Your task to perform on an android device: open app "NewsBreak: Local News & Alerts" (install if not already installed) and go to login screen Image 0: 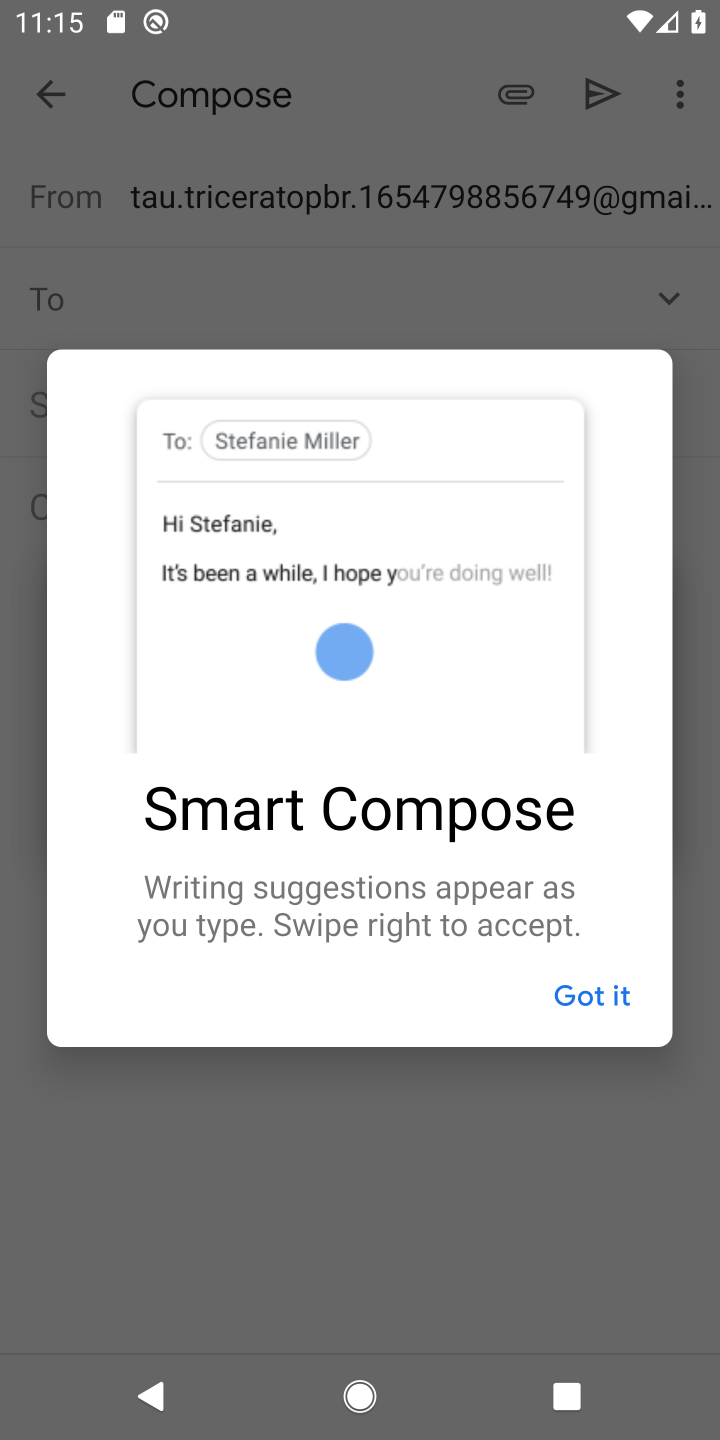
Step 0: press home button
Your task to perform on an android device: open app "NewsBreak: Local News & Alerts" (install if not already installed) and go to login screen Image 1: 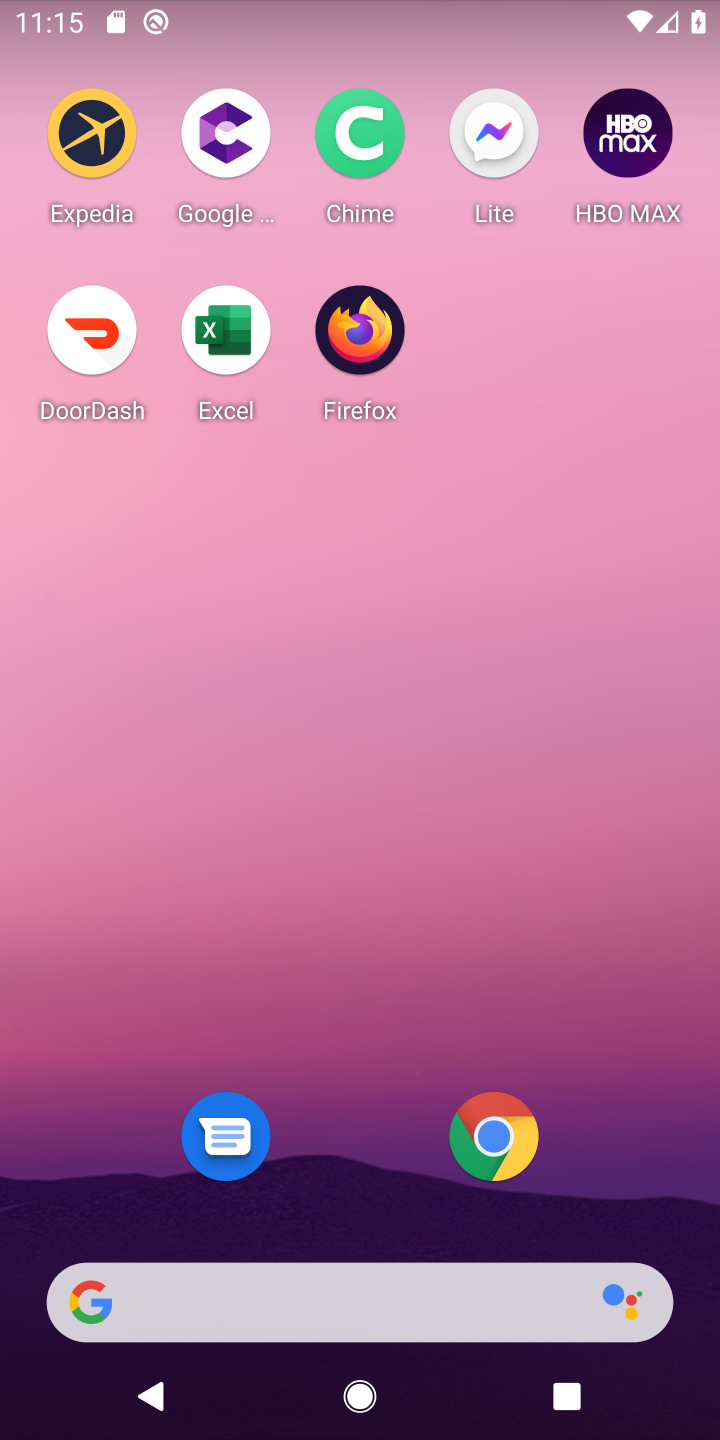
Step 1: drag from (354, 34) to (227, 7)
Your task to perform on an android device: open app "NewsBreak: Local News & Alerts" (install if not already installed) and go to login screen Image 2: 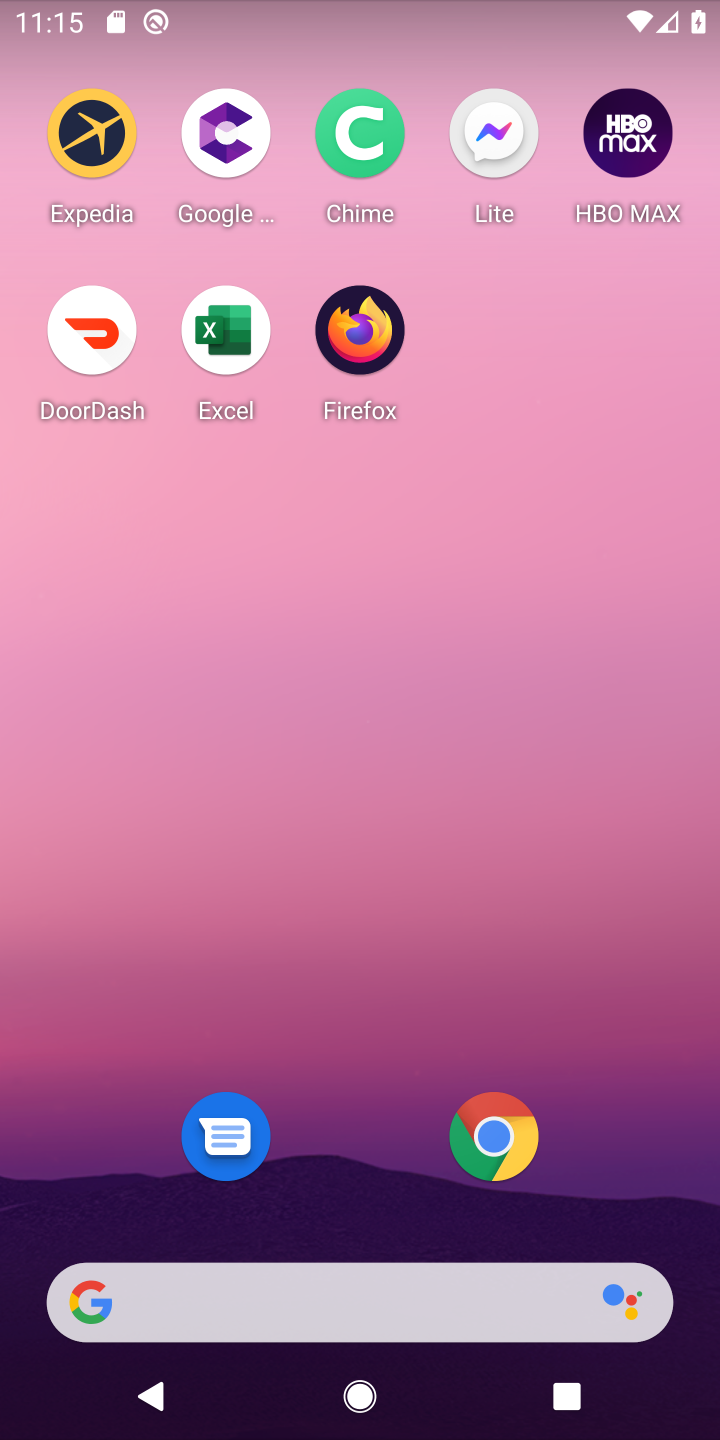
Step 2: drag from (335, 1165) to (460, 21)
Your task to perform on an android device: open app "NewsBreak: Local News & Alerts" (install if not already installed) and go to login screen Image 3: 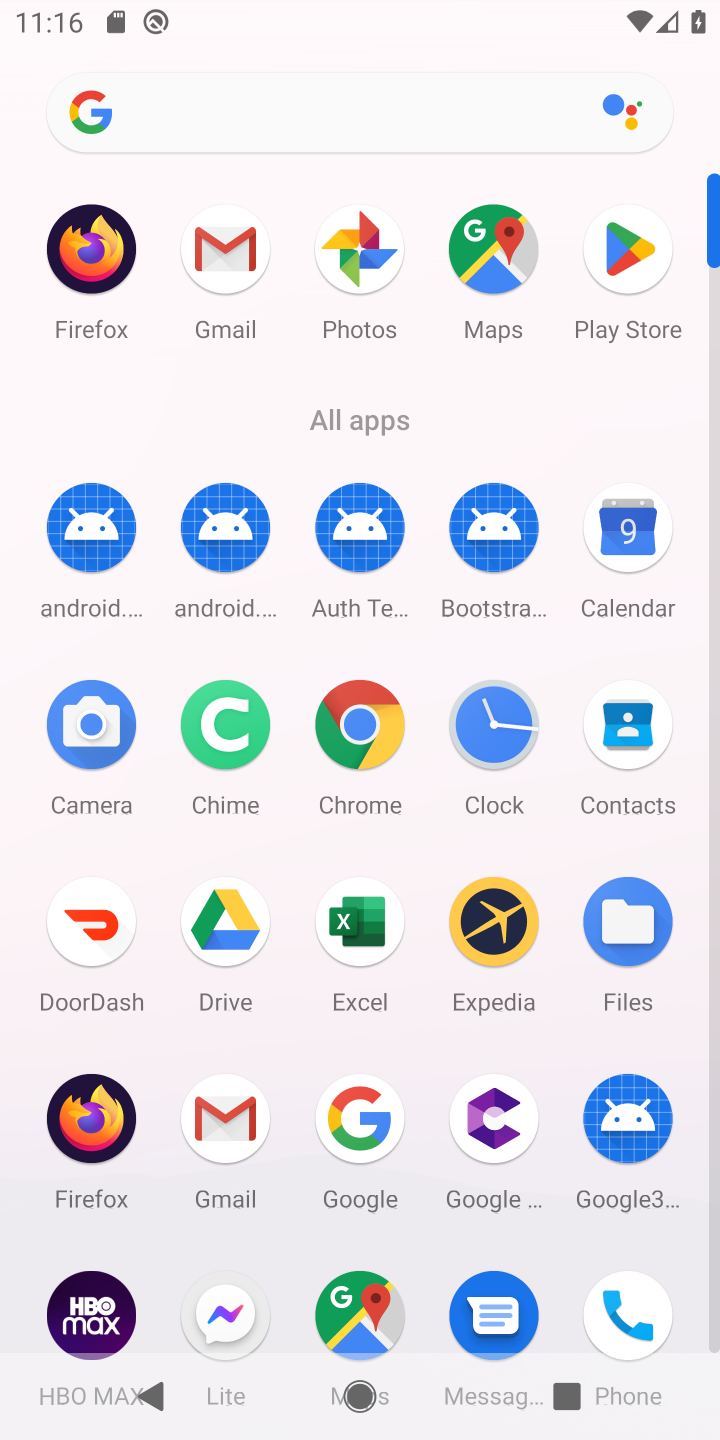
Step 3: drag from (308, 1229) to (373, 573)
Your task to perform on an android device: open app "NewsBreak: Local News & Alerts" (install if not already installed) and go to login screen Image 4: 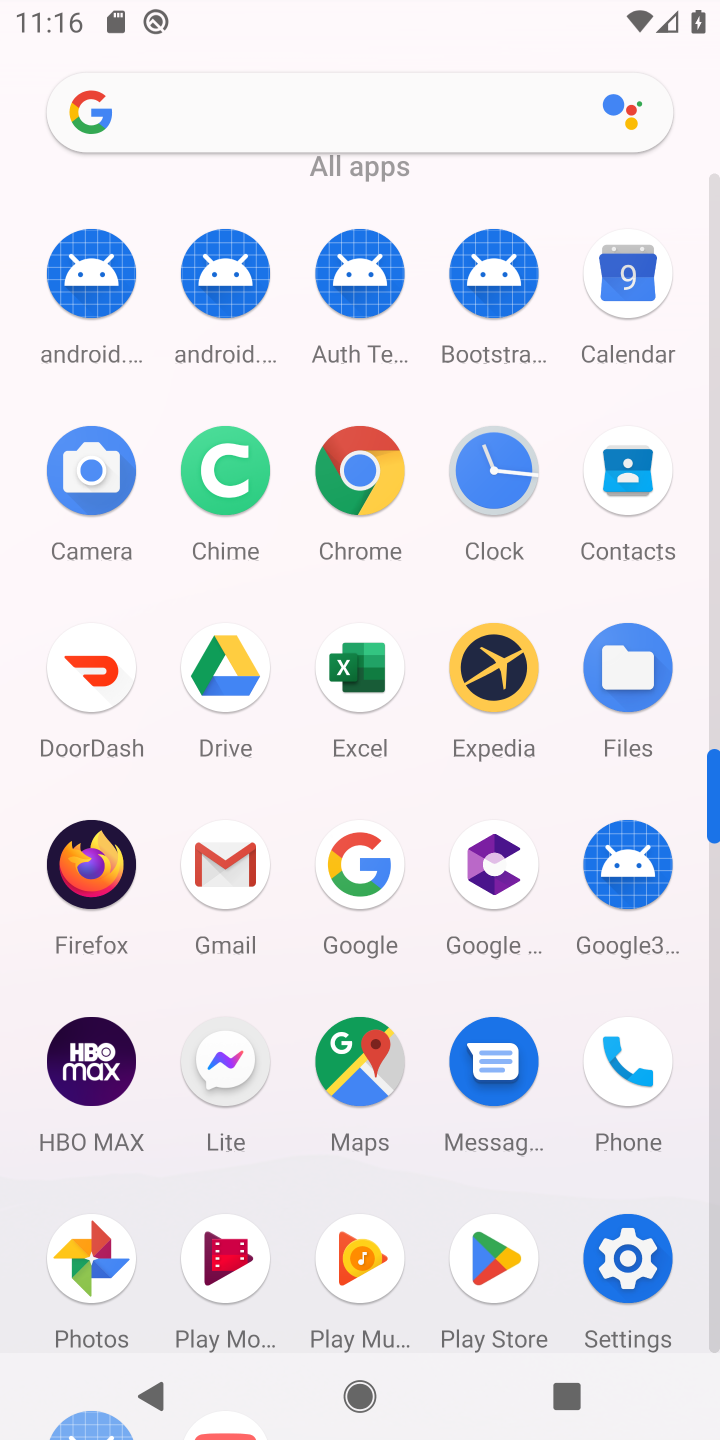
Step 4: click (503, 1266)
Your task to perform on an android device: open app "NewsBreak: Local News & Alerts" (install if not already installed) and go to login screen Image 5: 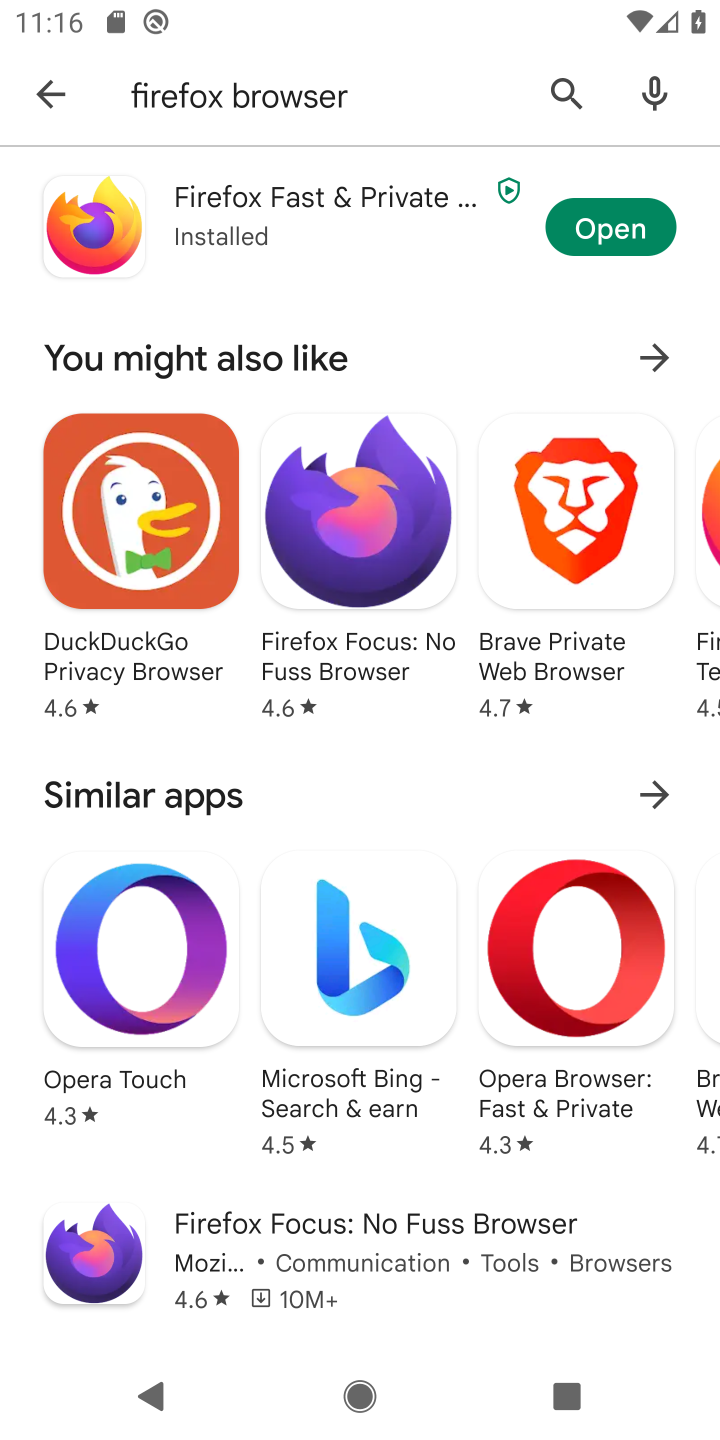
Step 5: click (252, 109)
Your task to perform on an android device: open app "NewsBreak: Local News & Alerts" (install if not already installed) and go to login screen Image 6: 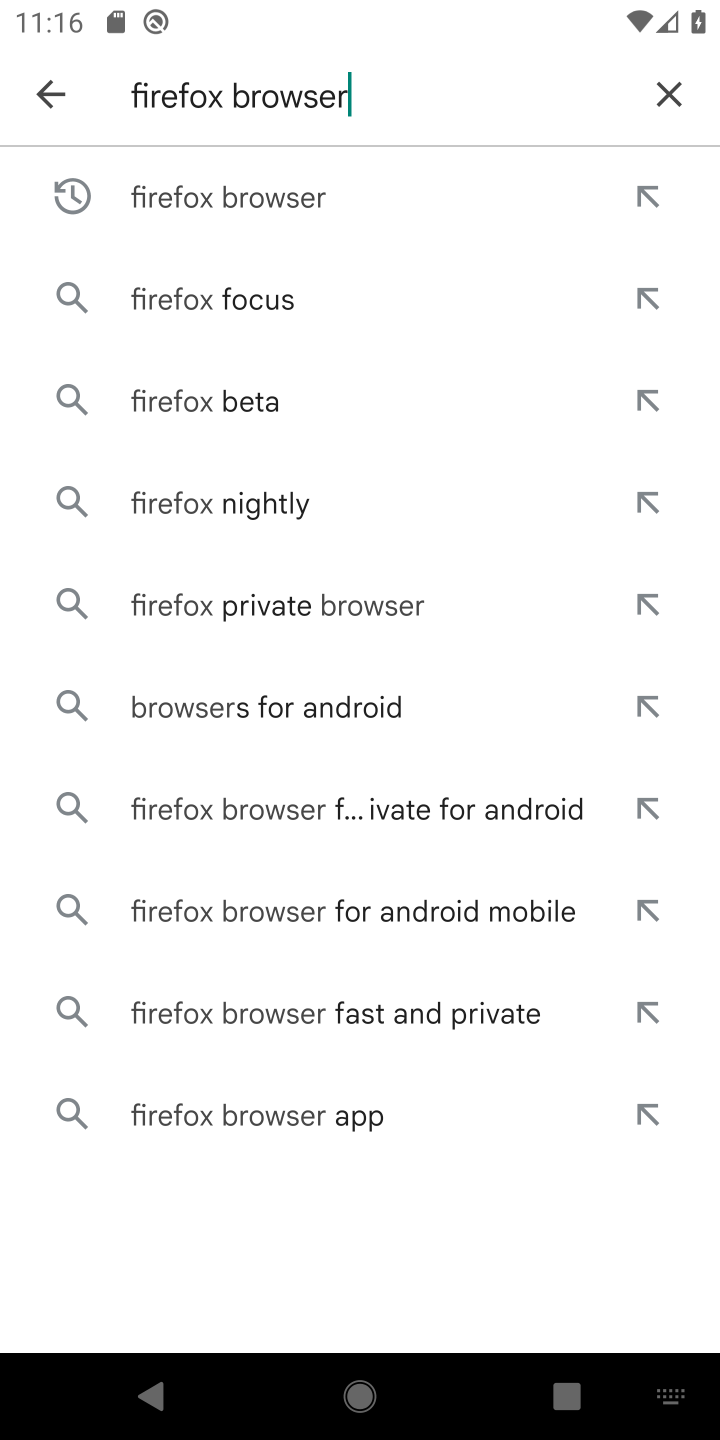
Step 6: click (693, 88)
Your task to perform on an android device: open app "NewsBreak: Local News & Alerts" (install if not already installed) and go to login screen Image 7: 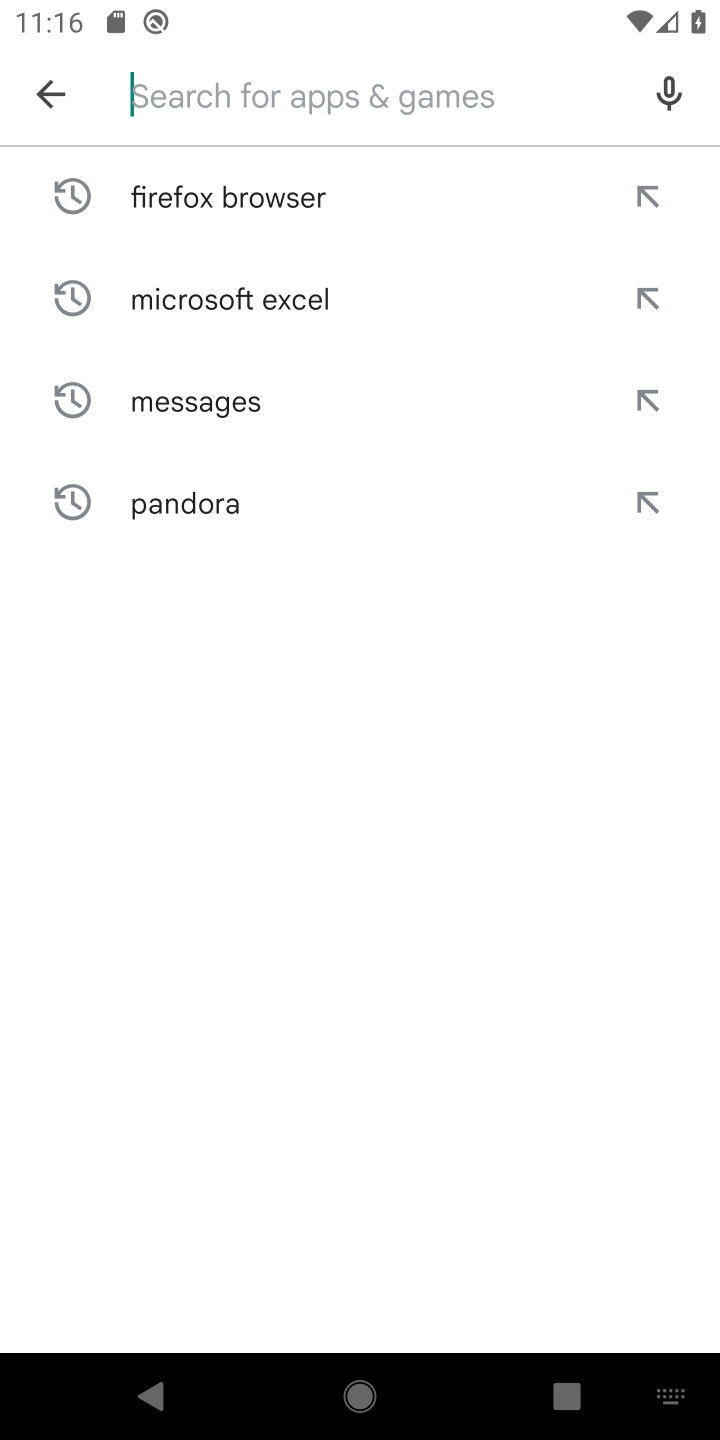
Step 7: type "NewsBreak: Local News & Alerts"
Your task to perform on an android device: open app "NewsBreak: Local News & Alerts" (install if not already installed) and go to login screen Image 8: 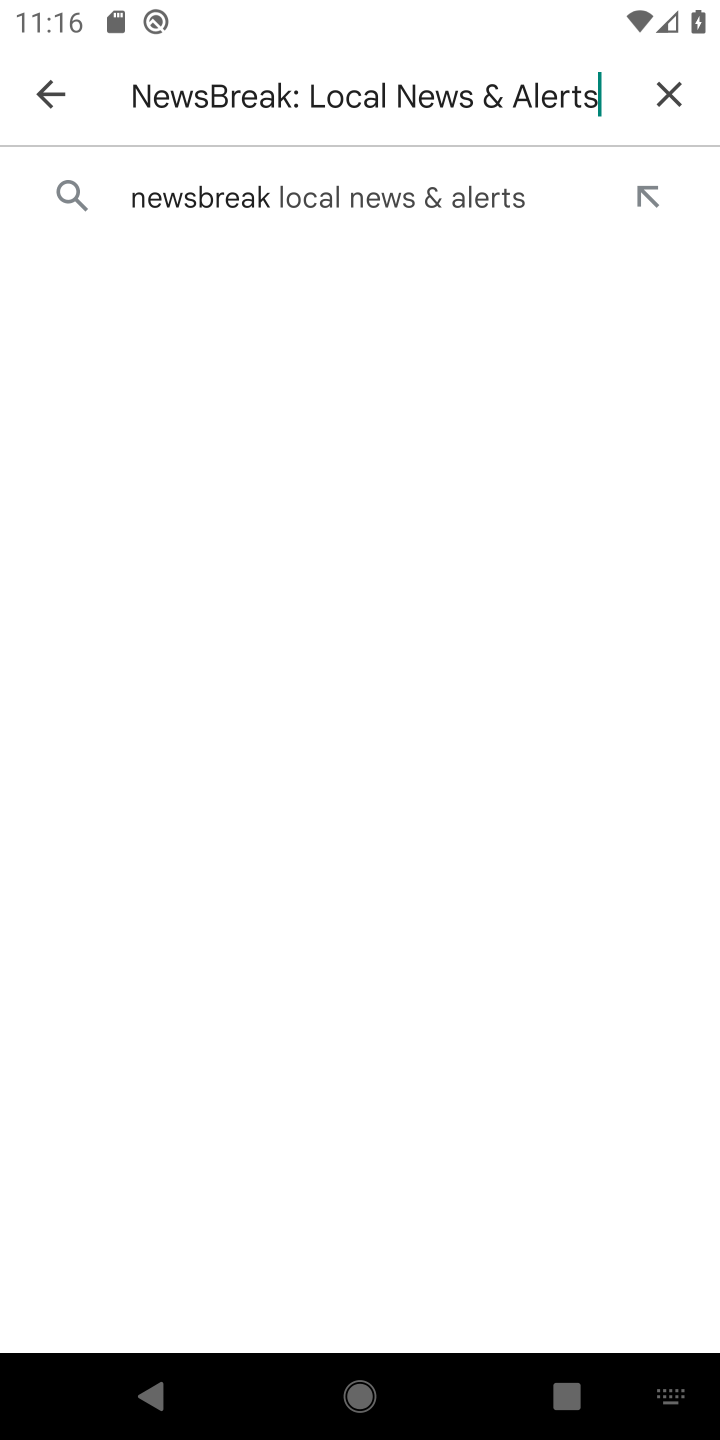
Step 8: click (315, 94)
Your task to perform on an android device: open app "NewsBreak: Local News & Alerts" (install if not already installed) and go to login screen Image 9: 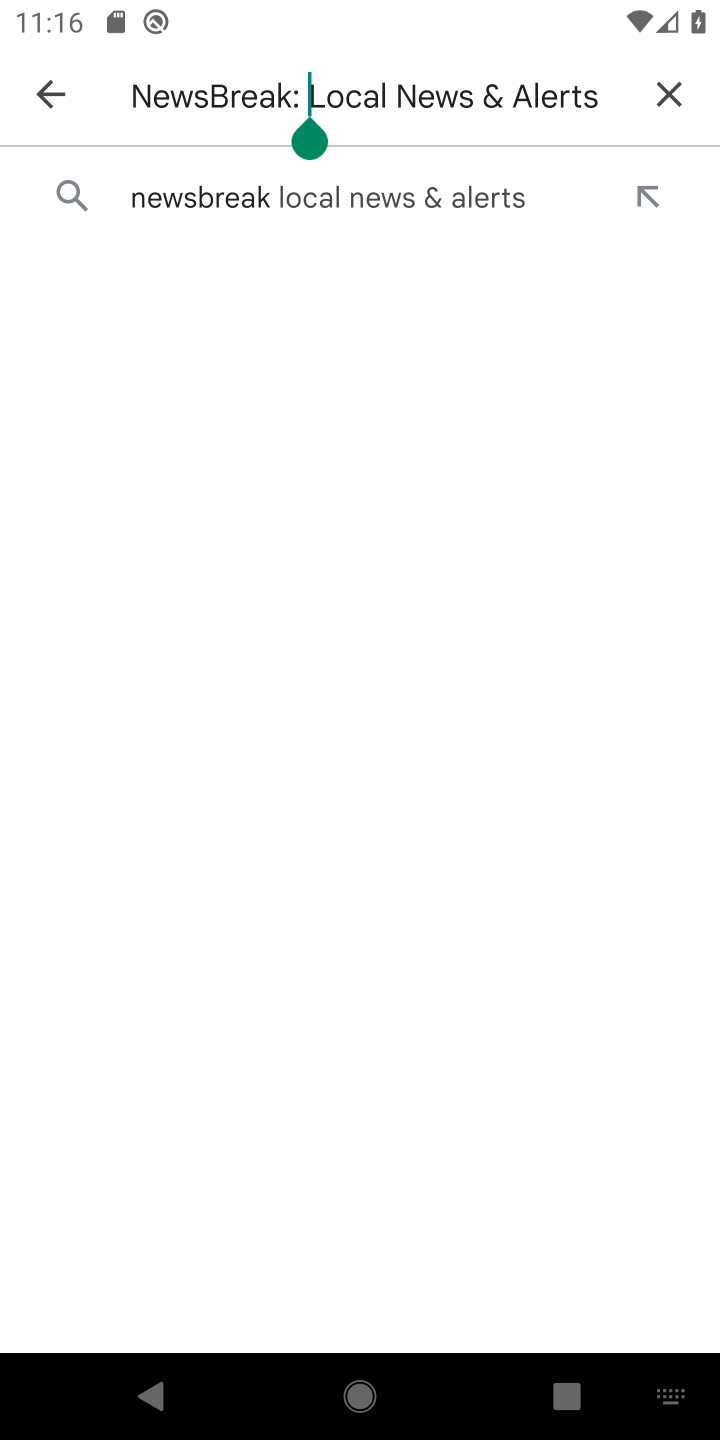
Step 9: click (325, 190)
Your task to perform on an android device: open app "NewsBreak: Local News & Alerts" (install if not already installed) and go to login screen Image 10: 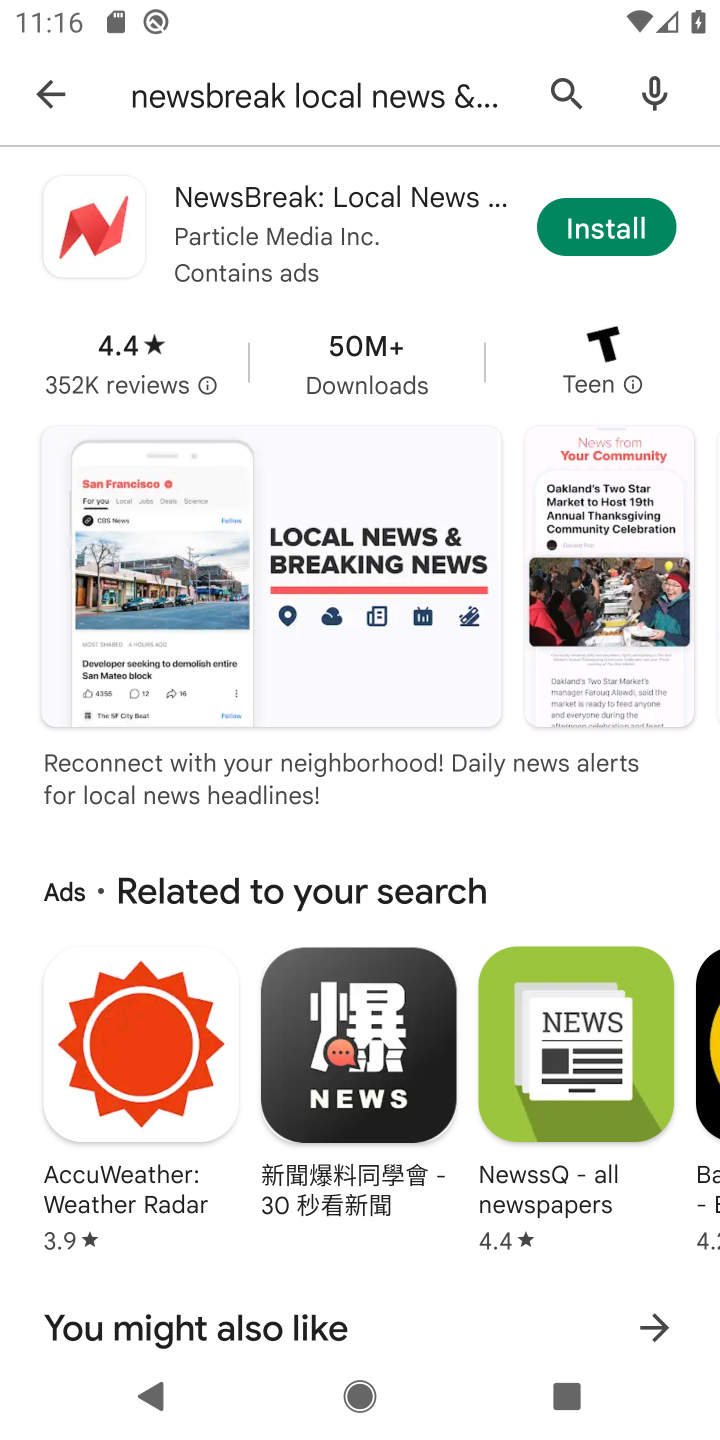
Step 10: click (587, 238)
Your task to perform on an android device: open app "NewsBreak: Local News & Alerts" (install if not already installed) and go to login screen Image 11: 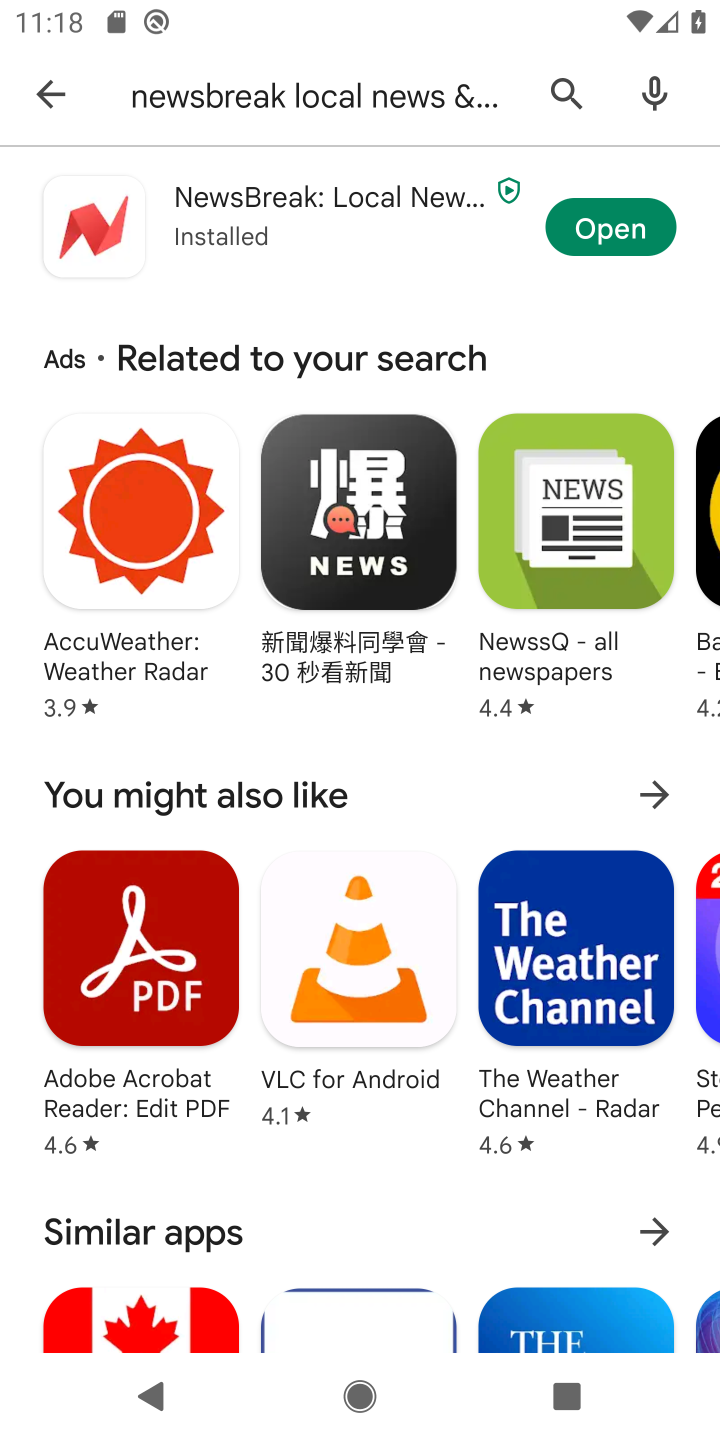
Step 11: click (596, 207)
Your task to perform on an android device: open app "NewsBreak: Local News & Alerts" (install if not already installed) and go to login screen Image 12: 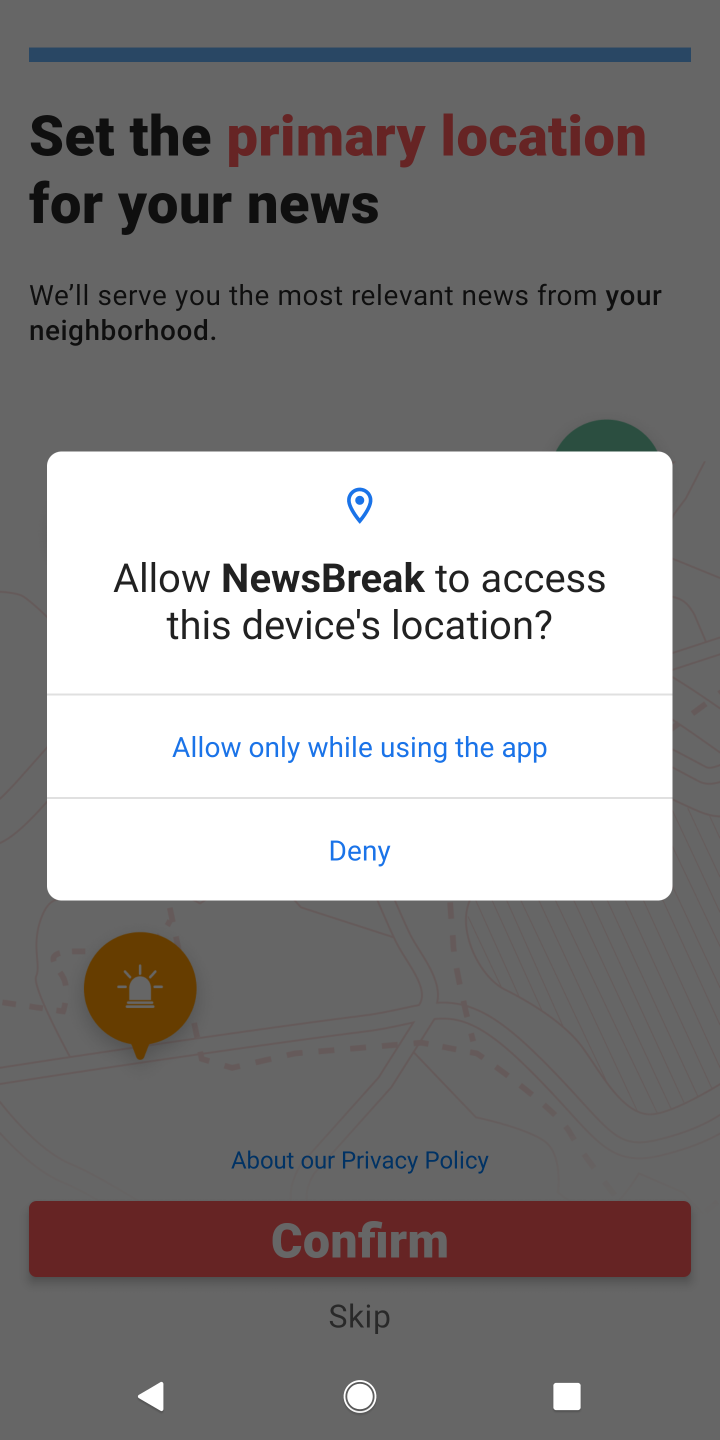
Step 12: click (428, 728)
Your task to perform on an android device: open app "NewsBreak: Local News & Alerts" (install if not already installed) and go to login screen Image 13: 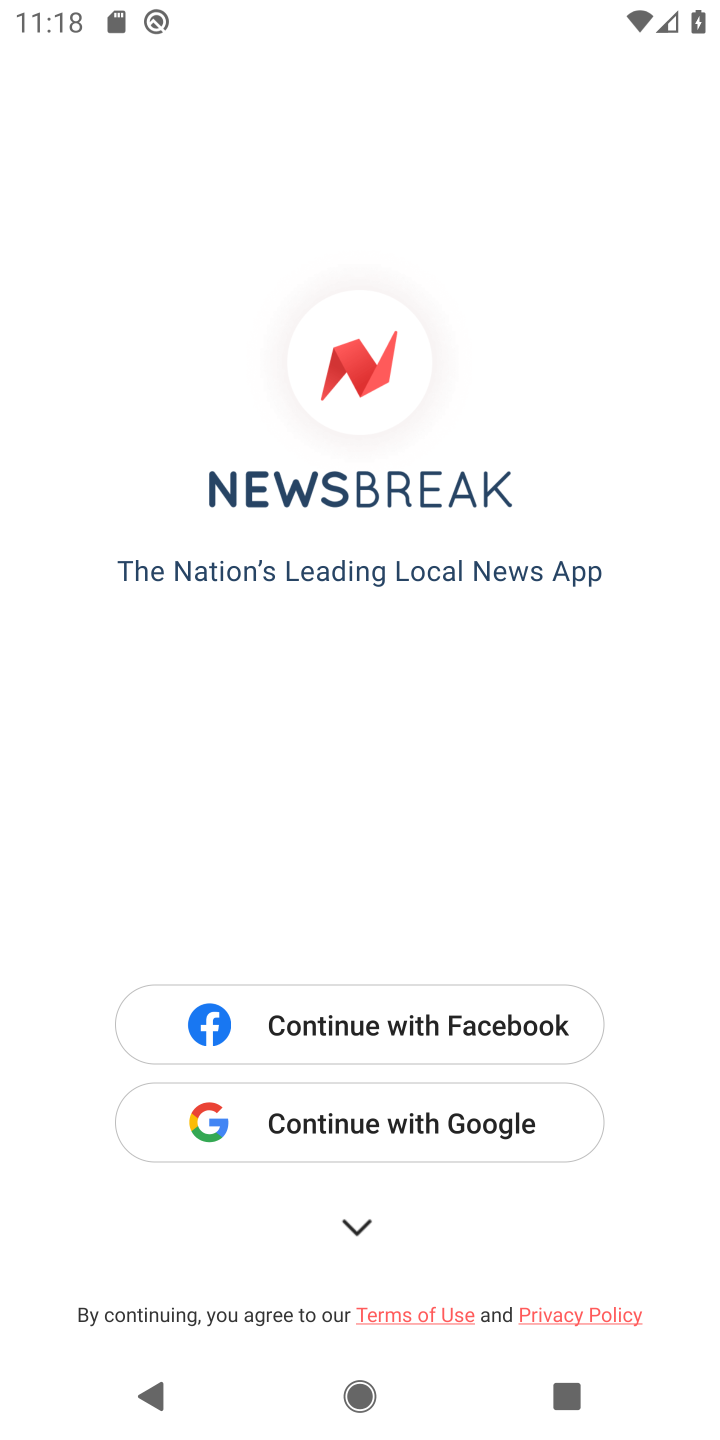
Step 13: click (357, 1220)
Your task to perform on an android device: open app "NewsBreak: Local News & Alerts" (install if not already installed) and go to login screen Image 14: 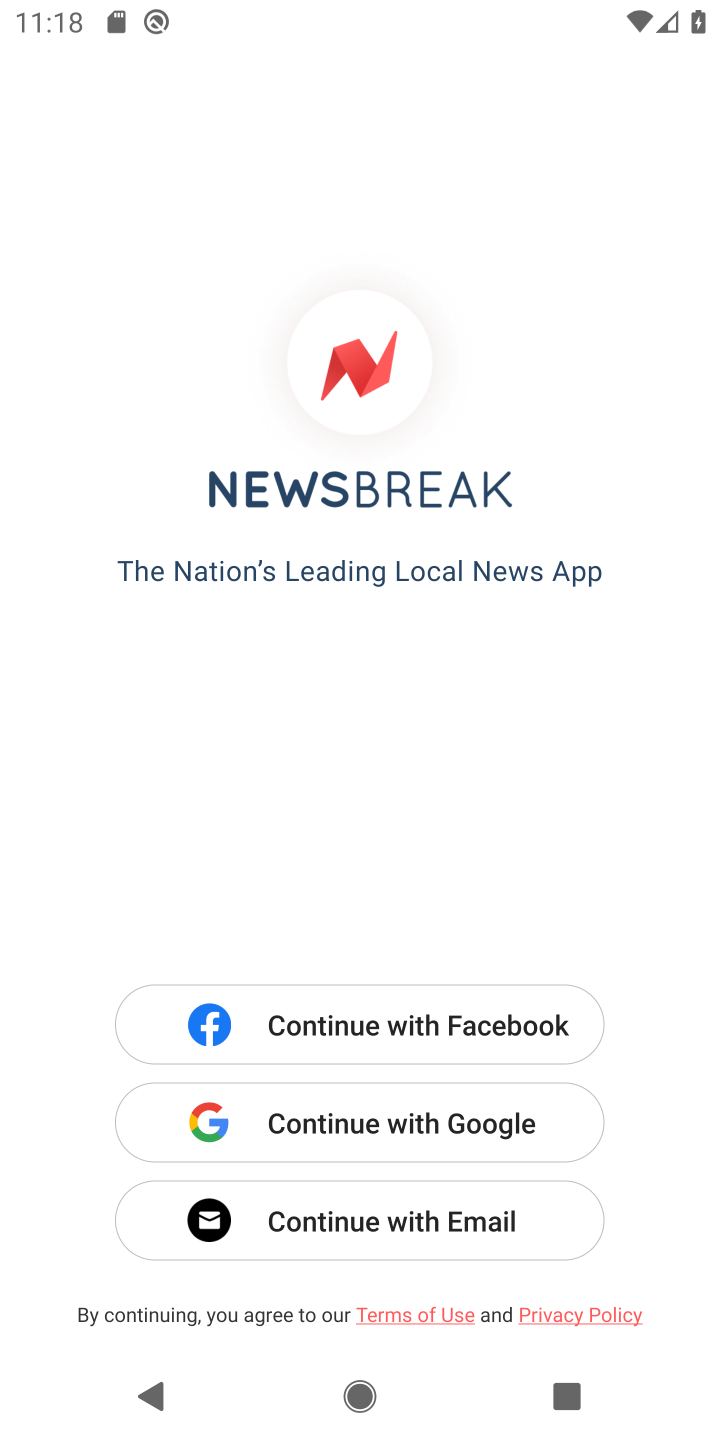
Step 14: click (520, 1125)
Your task to perform on an android device: open app "NewsBreak: Local News & Alerts" (install if not already installed) and go to login screen Image 15: 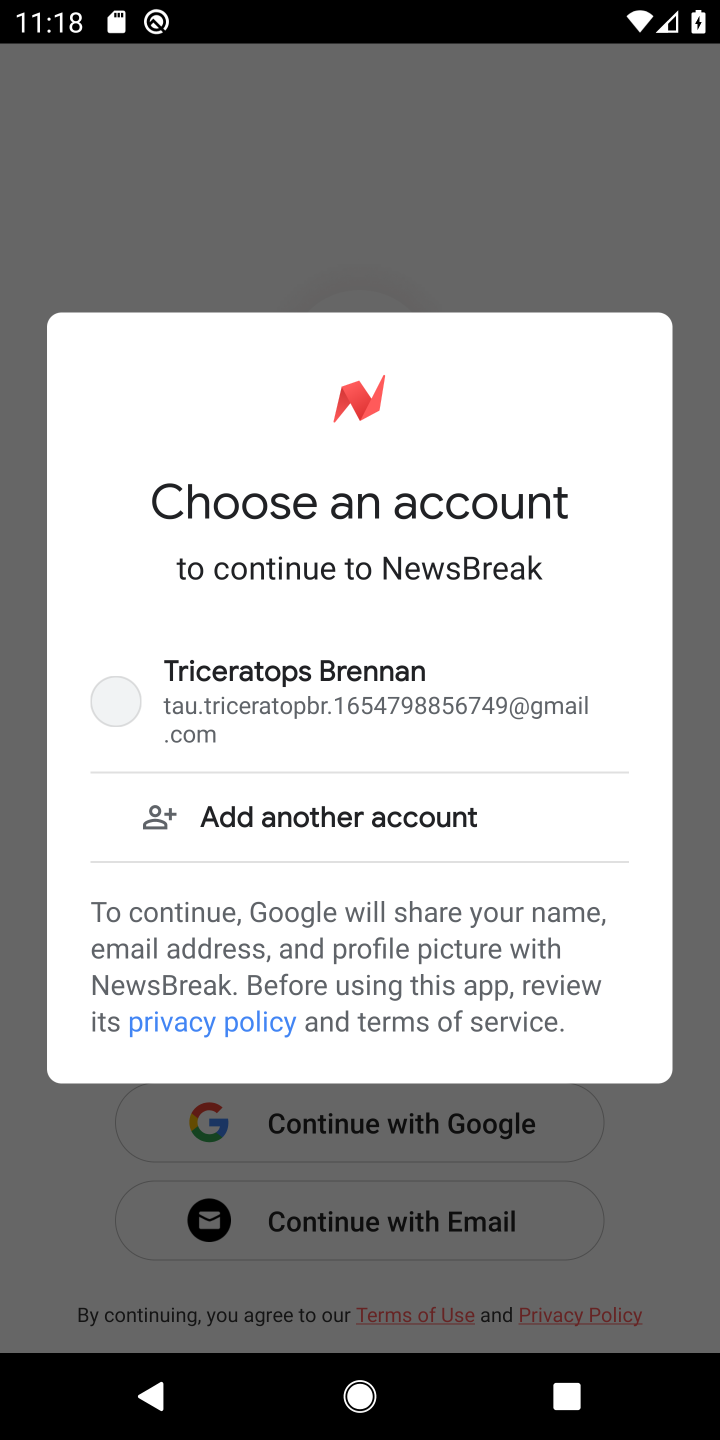
Step 15: click (407, 670)
Your task to perform on an android device: open app "NewsBreak: Local News & Alerts" (install if not already installed) and go to login screen Image 16: 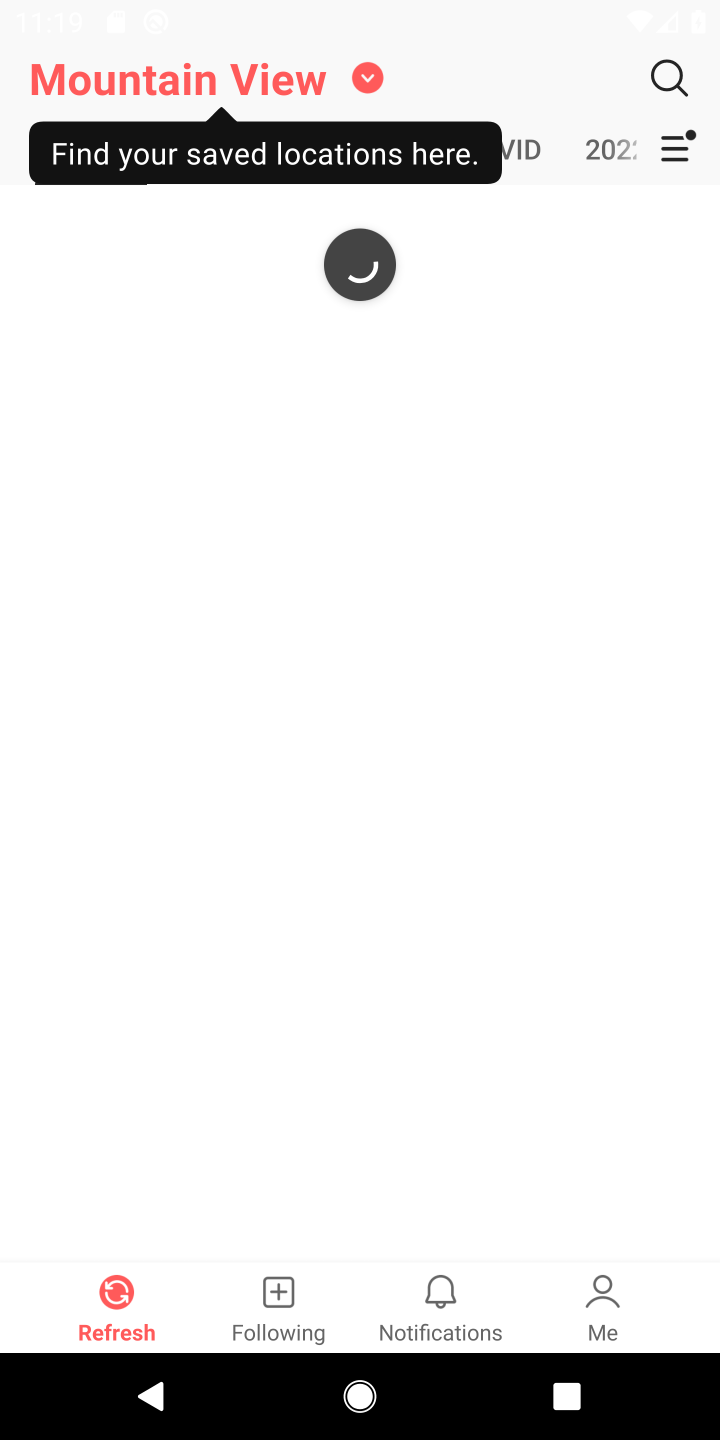
Step 16: task complete